Your task to perform on an android device: turn on sleep mode Image 0: 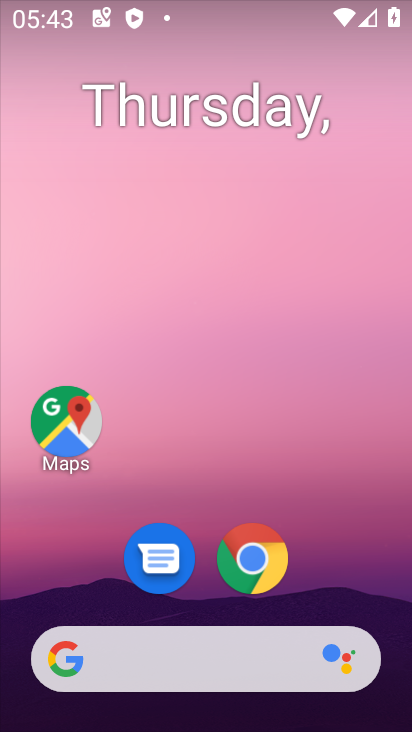
Step 0: drag from (302, 589) to (283, 93)
Your task to perform on an android device: turn on sleep mode Image 1: 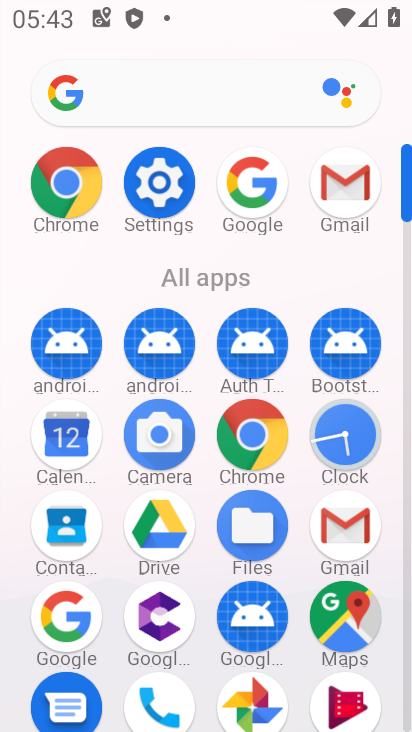
Step 1: click (160, 186)
Your task to perform on an android device: turn on sleep mode Image 2: 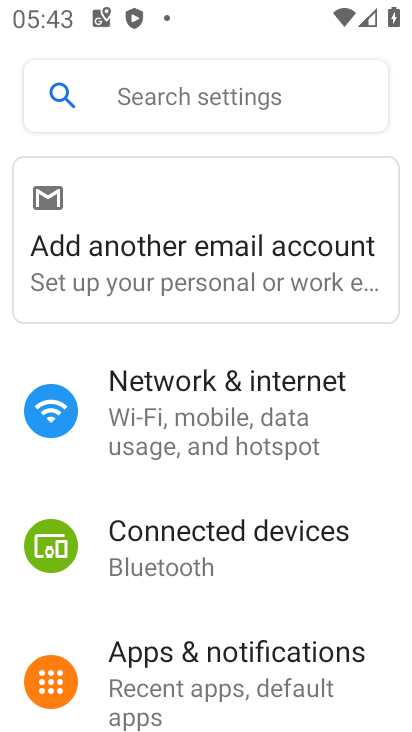
Step 2: task complete